Your task to perform on an android device: set the stopwatch Image 0: 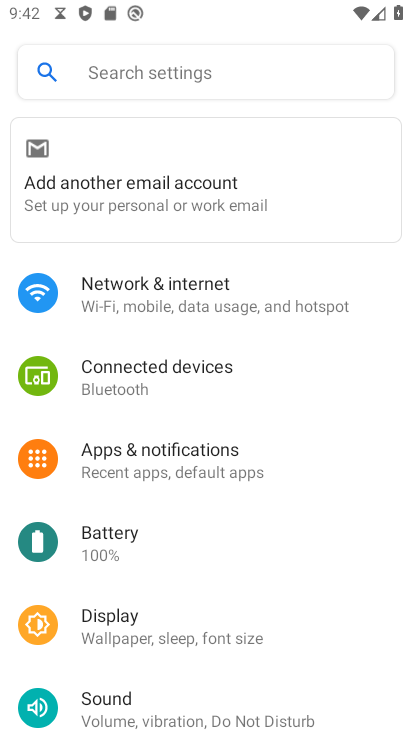
Step 0: press home button
Your task to perform on an android device: set the stopwatch Image 1: 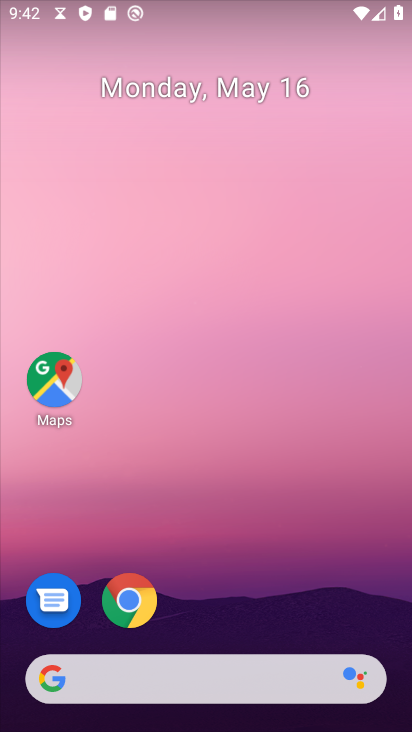
Step 1: drag from (243, 648) to (315, 196)
Your task to perform on an android device: set the stopwatch Image 2: 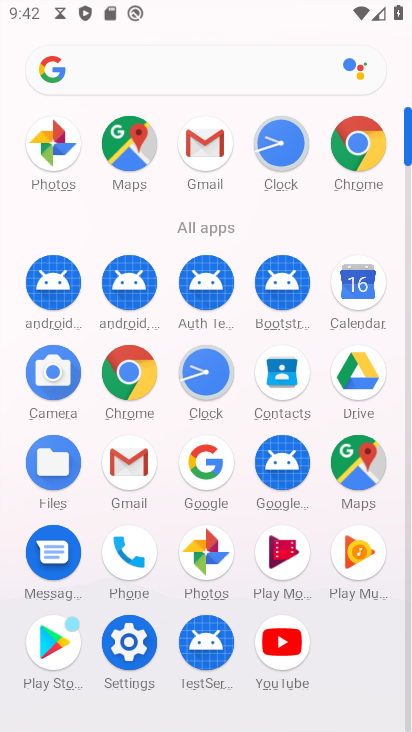
Step 2: click (218, 392)
Your task to perform on an android device: set the stopwatch Image 3: 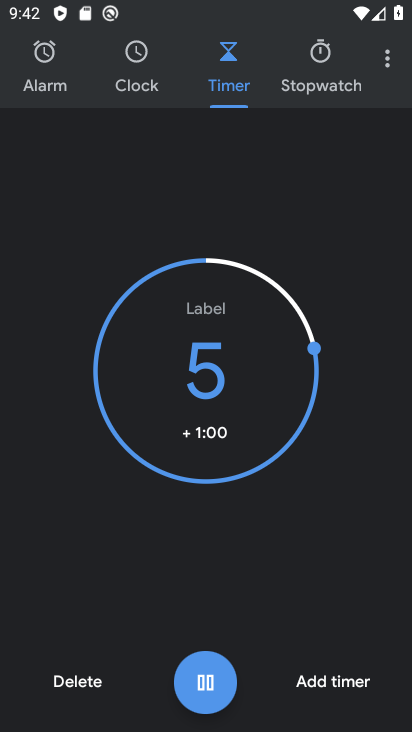
Step 3: click (322, 70)
Your task to perform on an android device: set the stopwatch Image 4: 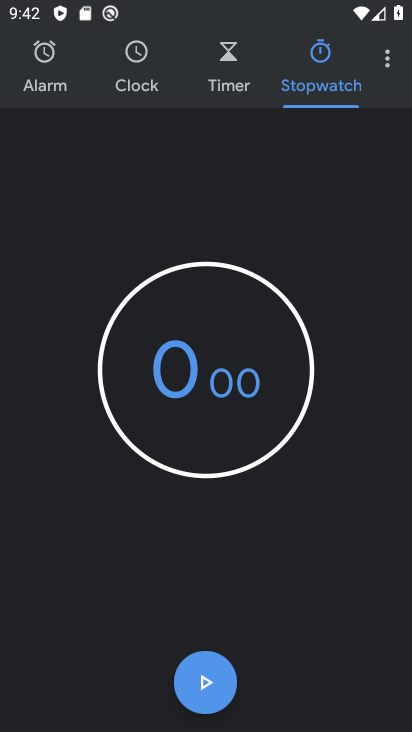
Step 4: click (217, 674)
Your task to perform on an android device: set the stopwatch Image 5: 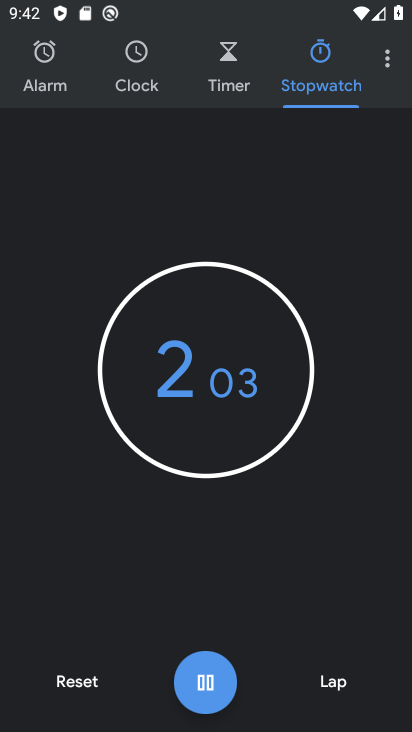
Step 5: task complete